Your task to perform on an android device: open app "DuckDuckGo Privacy Browser" Image 0: 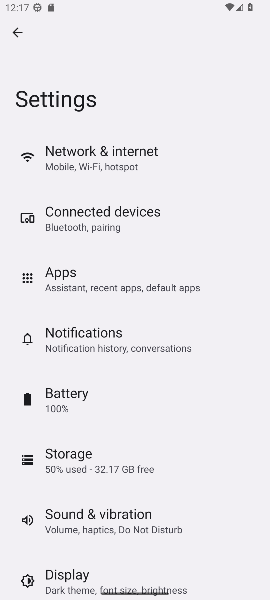
Step 0: press home button
Your task to perform on an android device: open app "DuckDuckGo Privacy Browser" Image 1: 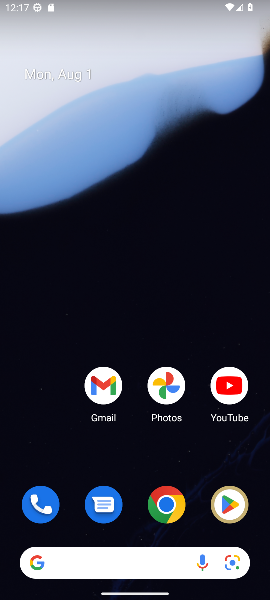
Step 1: drag from (131, 555) to (171, 98)
Your task to perform on an android device: open app "DuckDuckGo Privacy Browser" Image 2: 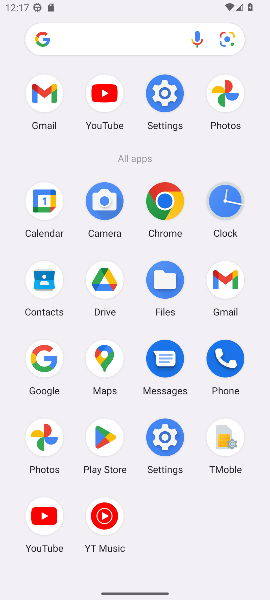
Step 2: click (98, 435)
Your task to perform on an android device: open app "DuckDuckGo Privacy Browser" Image 3: 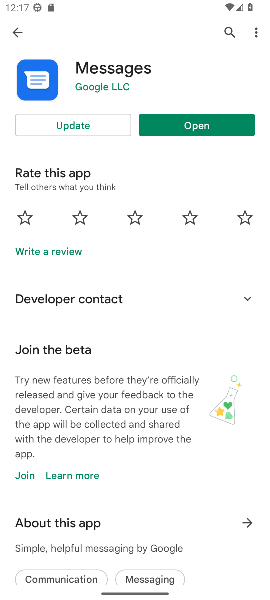
Step 3: click (230, 29)
Your task to perform on an android device: open app "DuckDuckGo Privacy Browser" Image 4: 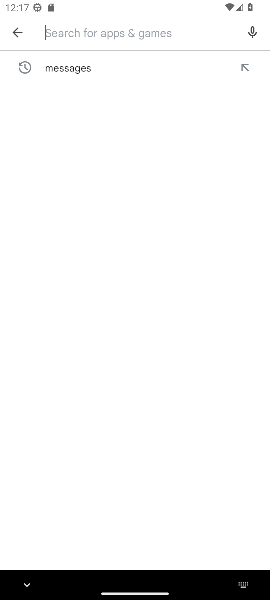
Step 4: type "duckduckgo privacy browser"
Your task to perform on an android device: open app "DuckDuckGo Privacy Browser" Image 5: 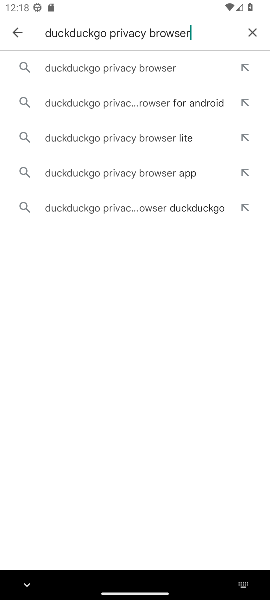
Step 5: click (172, 68)
Your task to perform on an android device: open app "DuckDuckGo Privacy Browser" Image 6: 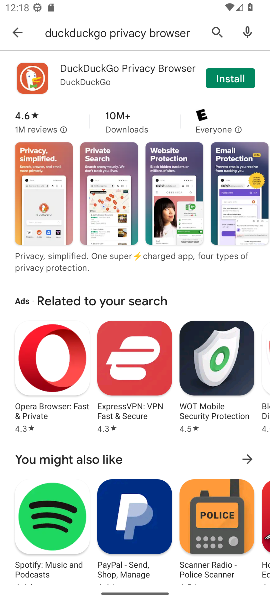
Step 6: task complete